Your task to perform on an android device: install app "Facebook" Image 0: 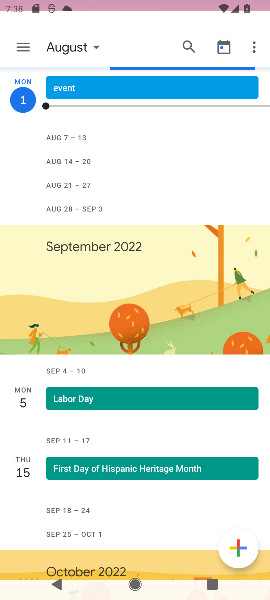
Step 0: click (230, 96)
Your task to perform on an android device: install app "Facebook" Image 1: 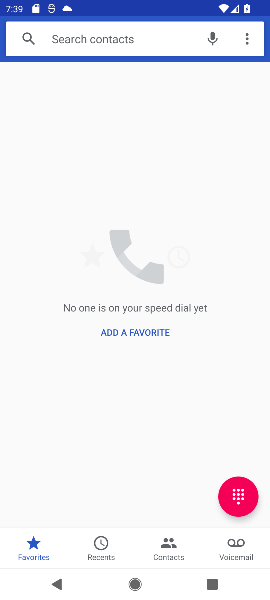
Step 1: press home button
Your task to perform on an android device: install app "Facebook" Image 2: 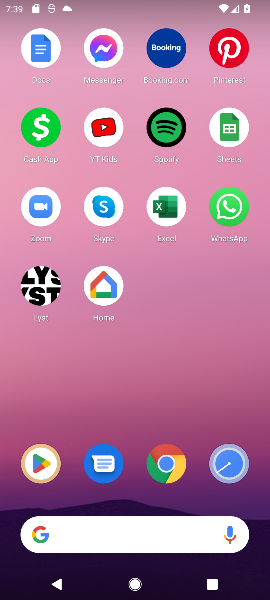
Step 2: click (48, 467)
Your task to perform on an android device: install app "Facebook" Image 3: 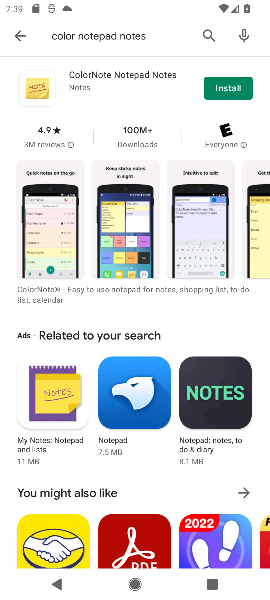
Step 3: click (219, 95)
Your task to perform on an android device: install app "Facebook" Image 4: 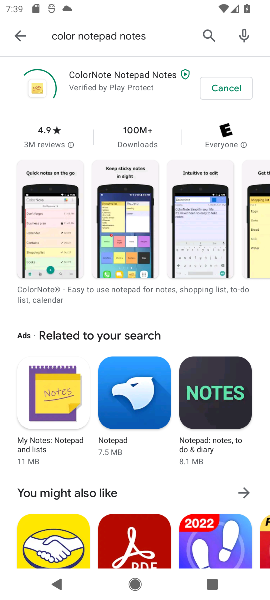
Step 4: click (202, 29)
Your task to perform on an android device: install app "Facebook" Image 5: 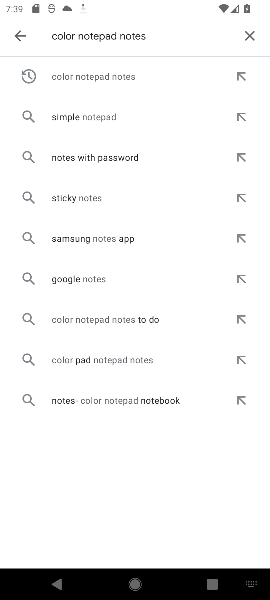
Step 5: click (251, 36)
Your task to perform on an android device: install app "Facebook" Image 6: 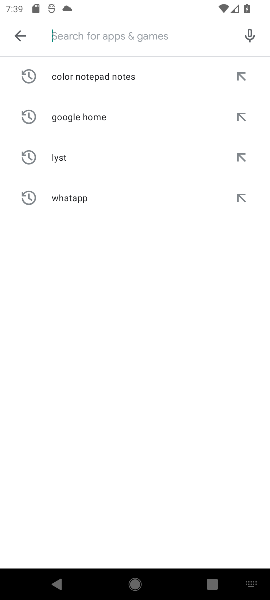
Step 6: type "facebook"
Your task to perform on an android device: install app "Facebook" Image 7: 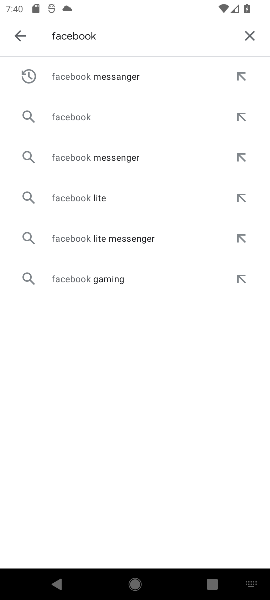
Step 7: click (70, 65)
Your task to perform on an android device: install app "Facebook" Image 8: 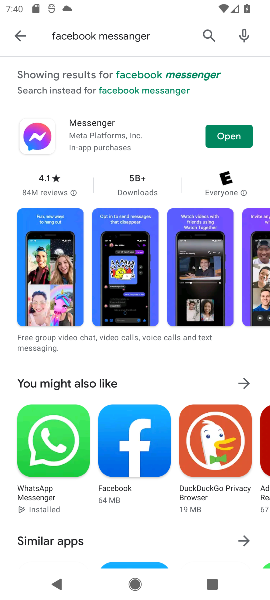
Step 8: click (205, 131)
Your task to perform on an android device: install app "Facebook" Image 9: 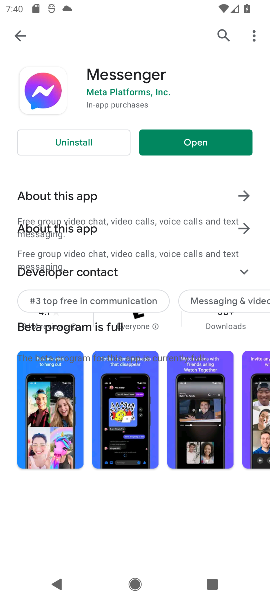
Step 9: task complete